Your task to perform on an android device: stop showing notifications on the lock screen Image 0: 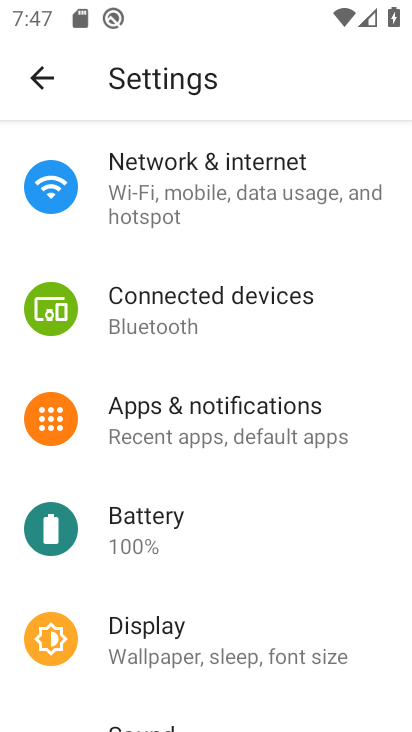
Step 0: press home button
Your task to perform on an android device: stop showing notifications on the lock screen Image 1: 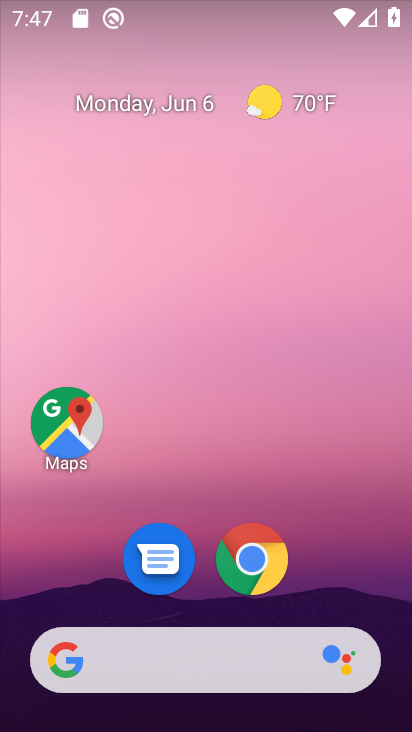
Step 1: drag from (230, 725) to (235, 51)
Your task to perform on an android device: stop showing notifications on the lock screen Image 2: 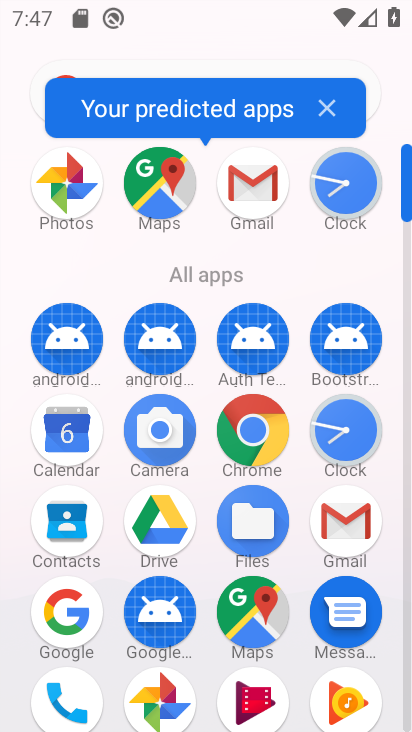
Step 2: drag from (285, 546) to (269, 172)
Your task to perform on an android device: stop showing notifications on the lock screen Image 3: 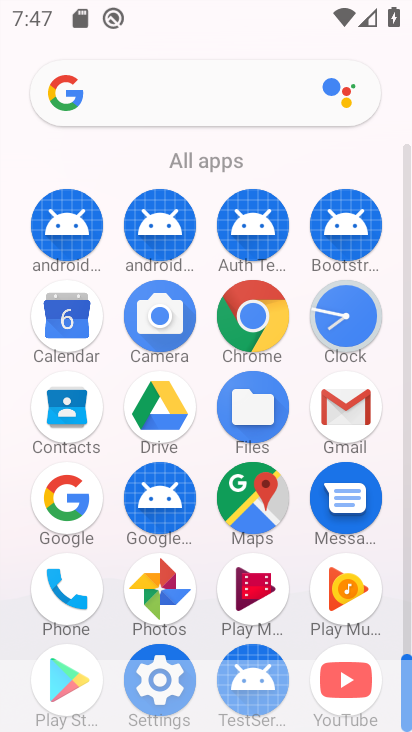
Step 3: click (157, 655)
Your task to perform on an android device: stop showing notifications on the lock screen Image 4: 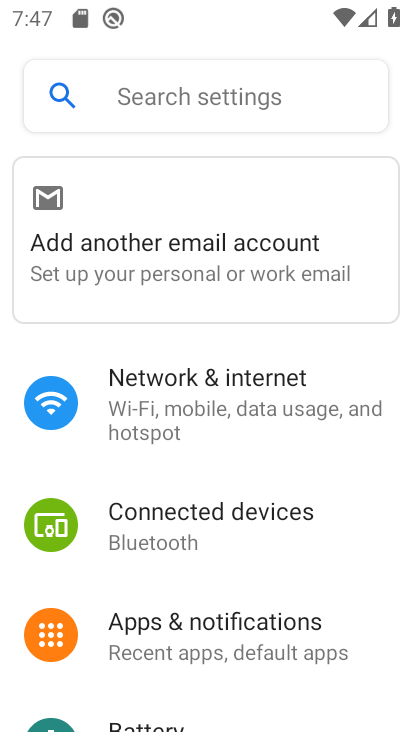
Step 4: click (204, 642)
Your task to perform on an android device: stop showing notifications on the lock screen Image 5: 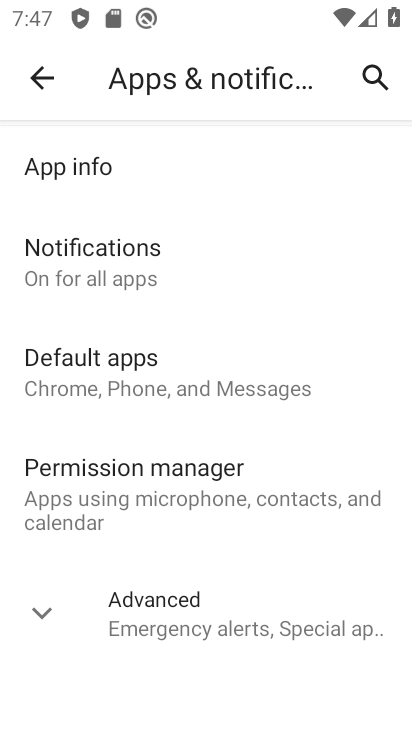
Step 5: click (91, 253)
Your task to perform on an android device: stop showing notifications on the lock screen Image 6: 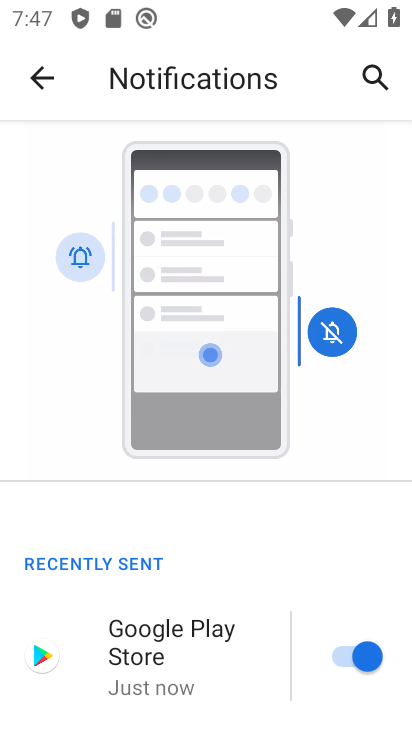
Step 6: drag from (259, 688) to (260, 372)
Your task to perform on an android device: stop showing notifications on the lock screen Image 7: 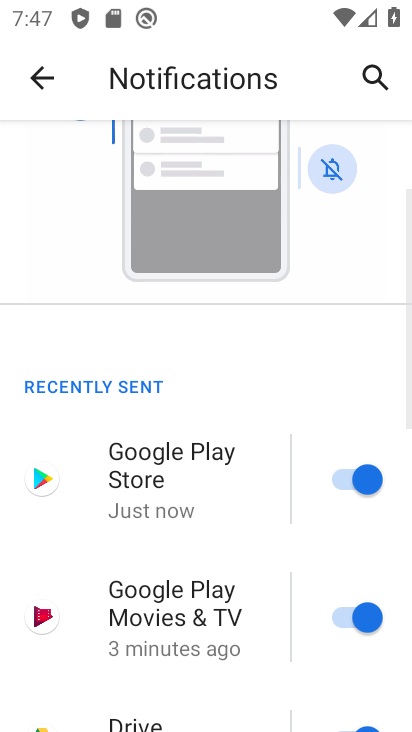
Step 7: drag from (238, 696) to (239, 309)
Your task to perform on an android device: stop showing notifications on the lock screen Image 8: 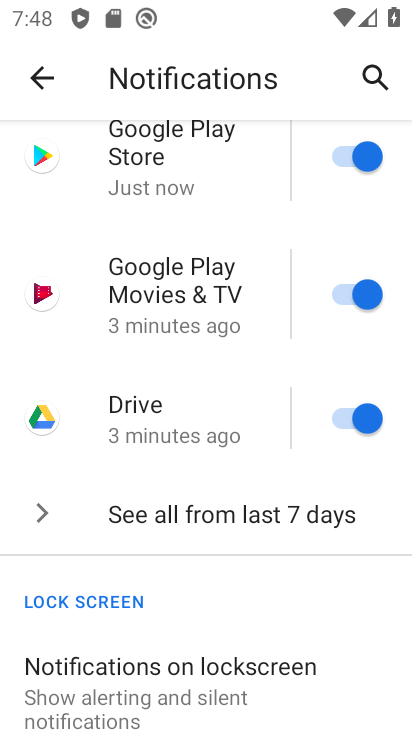
Step 8: drag from (246, 690) to (231, 408)
Your task to perform on an android device: stop showing notifications on the lock screen Image 9: 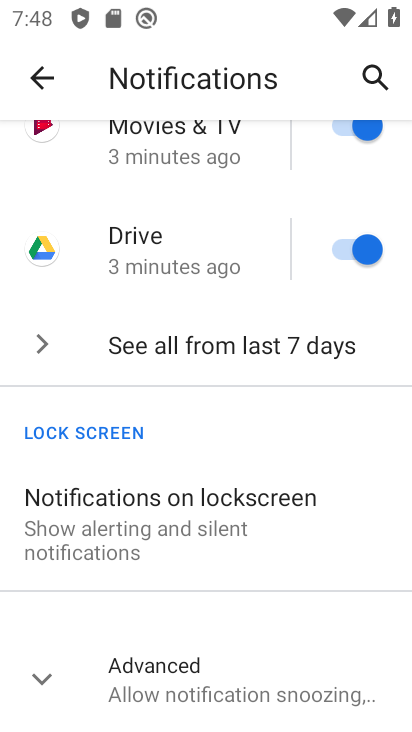
Step 9: click (173, 507)
Your task to perform on an android device: stop showing notifications on the lock screen Image 10: 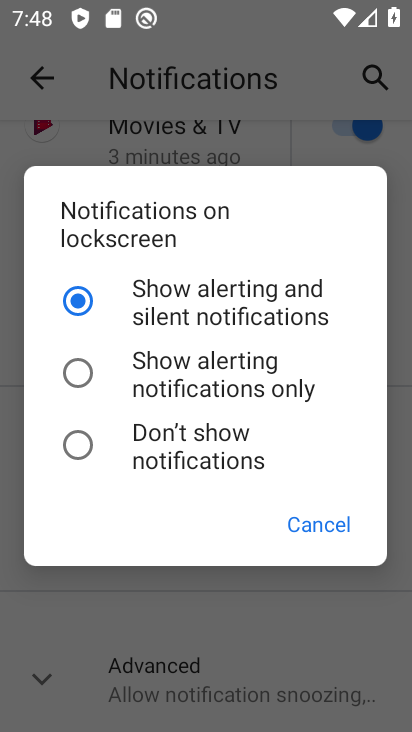
Step 10: click (84, 449)
Your task to perform on an android device: stop showing notifications on the lock screen Image 11: 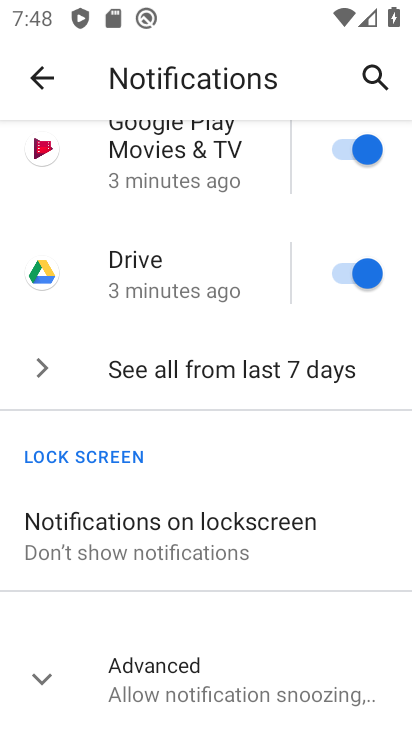
Step 11: task complete